Your task to perform on an android device: Check the weather Image 0: 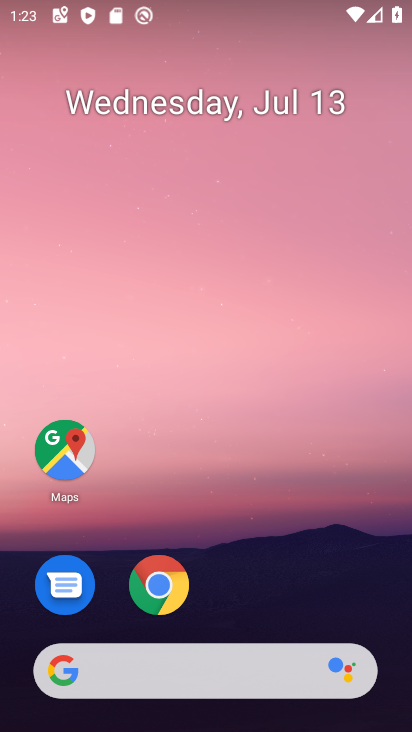
Step 0: press home button
Your task to perform on an android device: Check the weather Image 1: 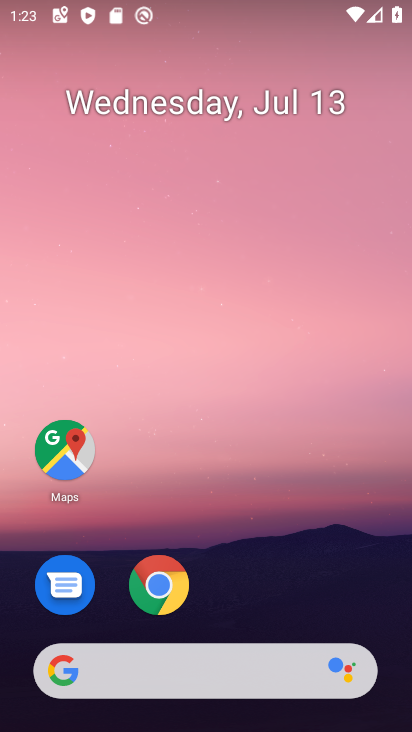
Step 1: click (159, 669)
Your task to perform on an android device: Check the weather Image 2: 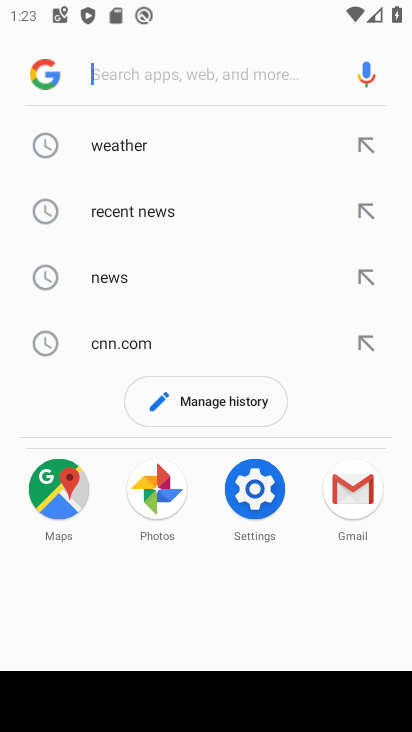
Step 2: click (120, 139)
Your task to perform on an android device: Check the weather Image 3: 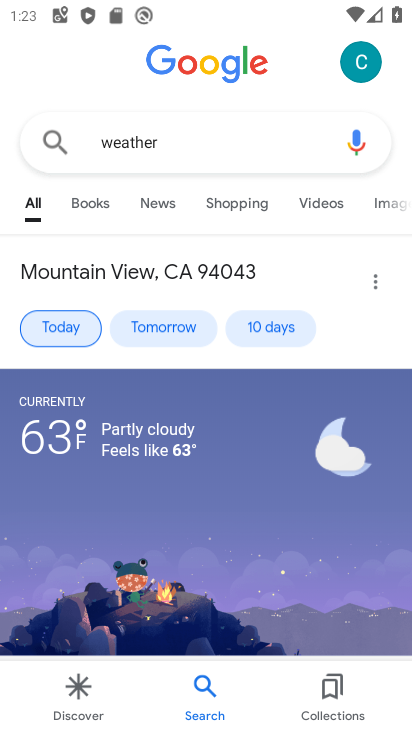
Step 3: task complete